Your task to perform on an android device: Search for energizer triple a on amazon, select the first entry, and add it to the cart. Image 0: 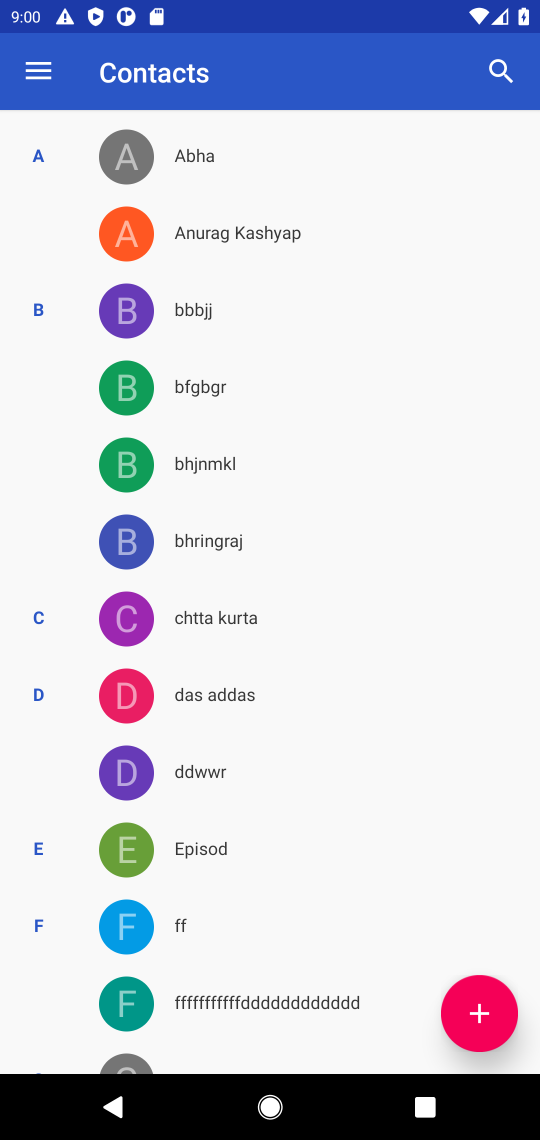
Step 0: press home button
Your task to perform on an android device: Search for energizer triple a on amazon, select the first entry, and add it to the cart. Image 1: 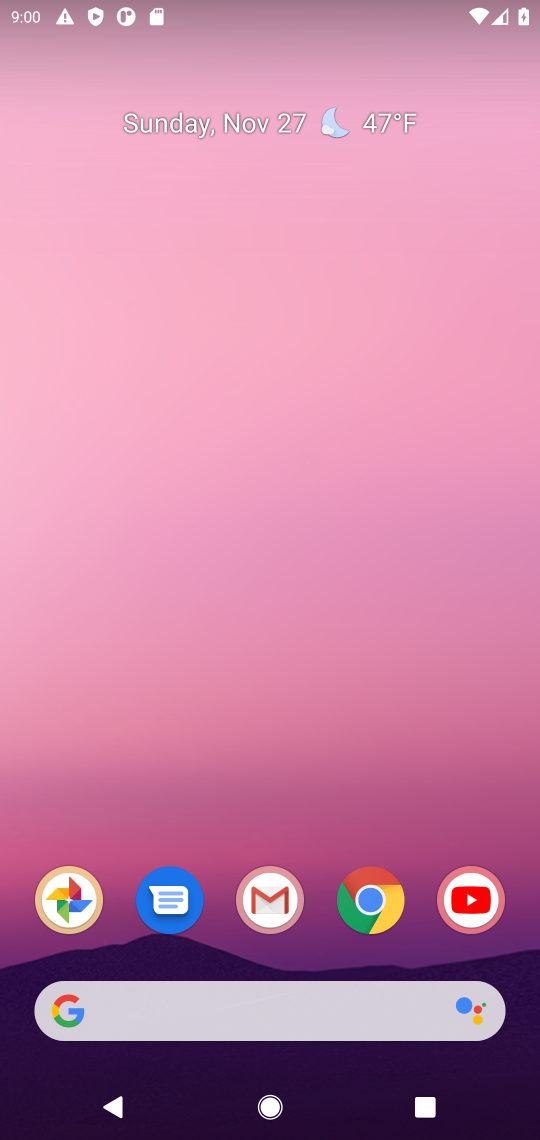
Step 1: click (371, 904)
Your task to perform on an android device: Search for energizer triple a on amazon, select the first entry, and add it to the cart. Image 2: 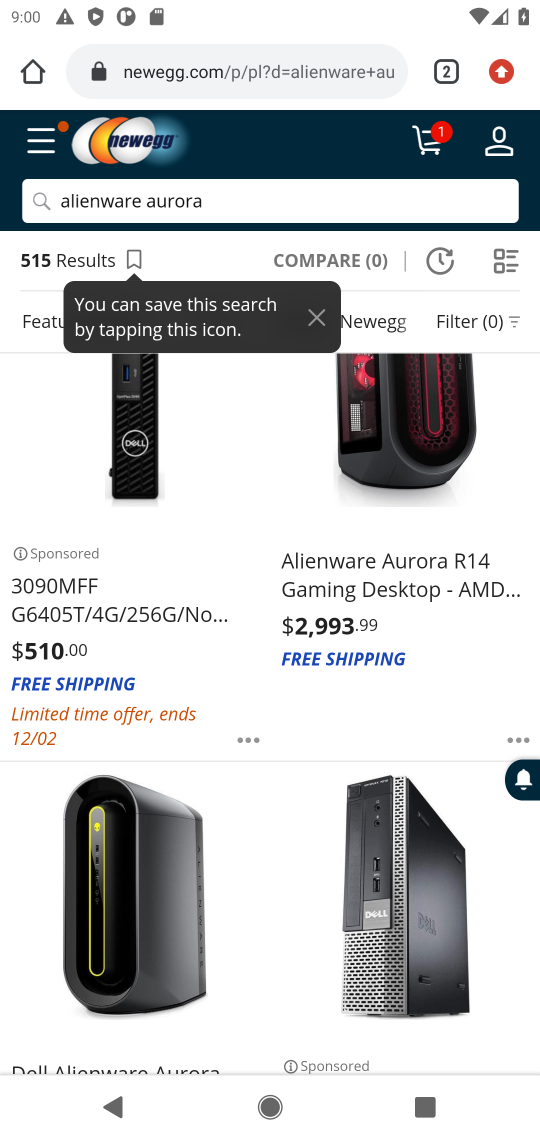
Step 2: click (192, 78)
Your task to perform on an android device: Search for energizer triple a on amazon, select the first entry, and add it to the cart. Image 3: 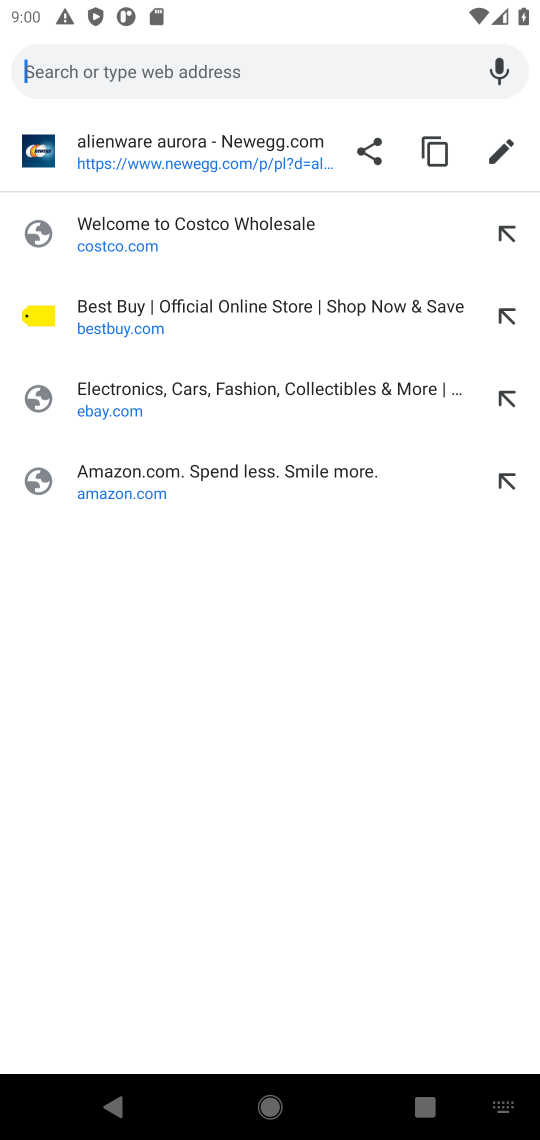
Step 3: click (97, 477)
Your task to perform on an android device: Search for energizer triple a on amazon, select the first entry, and add it to the cart. Image 4: 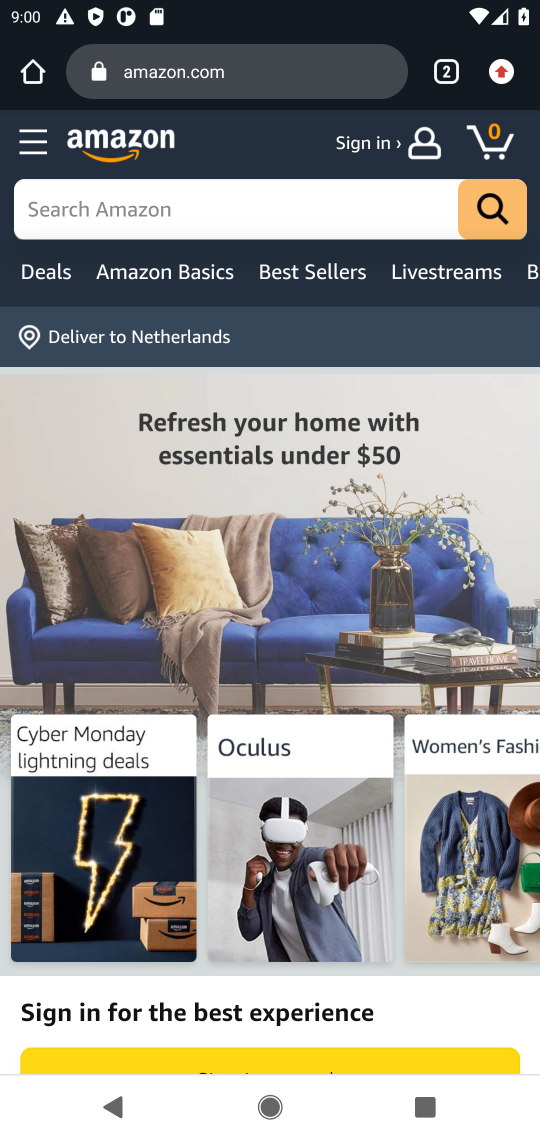
Step 4: click (120, 214)
Your task to perform on an android device: Search for energizer triple a on amazon, select the first entry, and add it to the cart. Image 5: 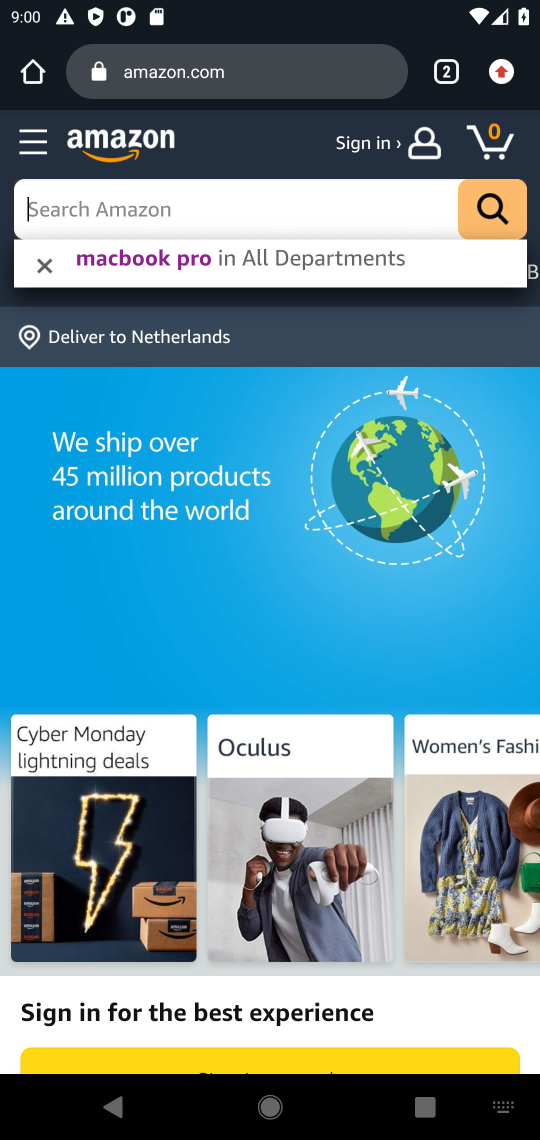
Step 5: type "energizer triple a "
Your task to perform on an android device: Search for energizer triple a on amazon, select the first entry, and add it to the cart. Image 6: 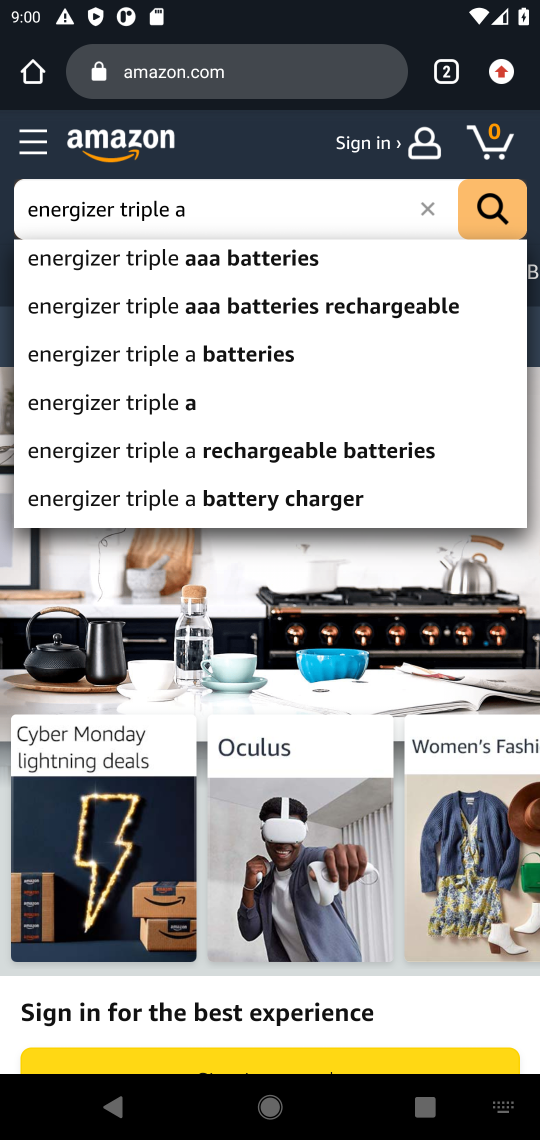
Step 6: click (114, 410)
Your task to perform on an android device: Search for energizer triple a on amazon, select the first entry, and add it to the cart. Image 7: 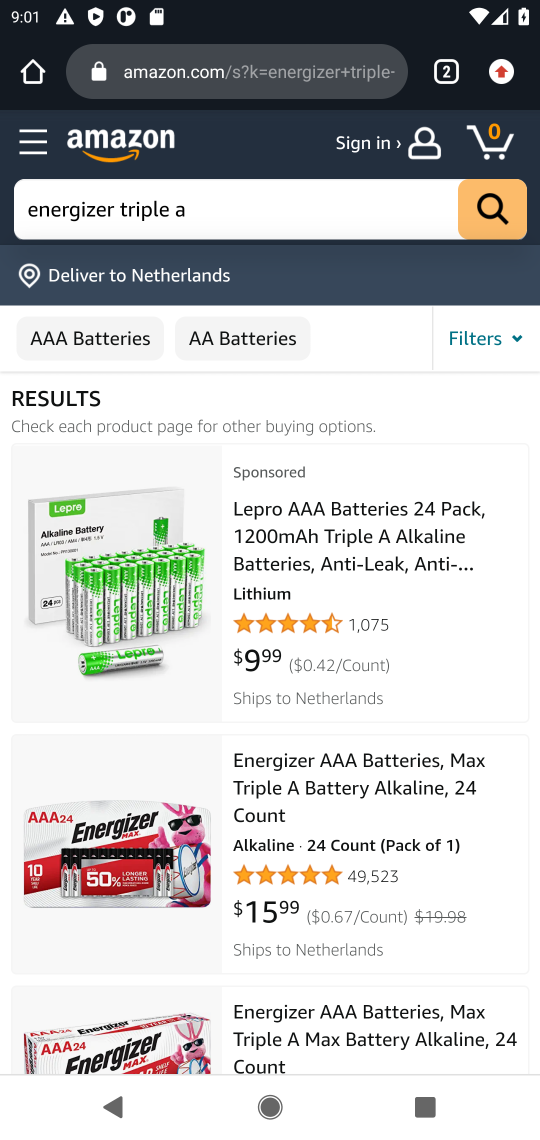
Step 7: task complete